Your task to perform on an android device: turn off priority inbox in the gmail app Image 0: 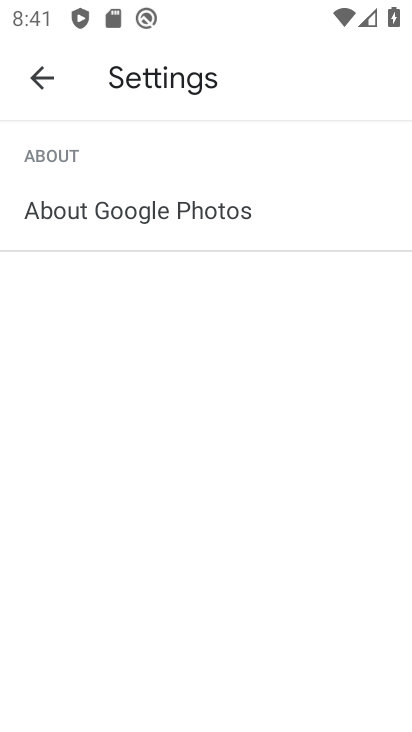
Step 0: press home button
Your task to perform on an android device: turn off priority inbox in the gmail app Image 1: 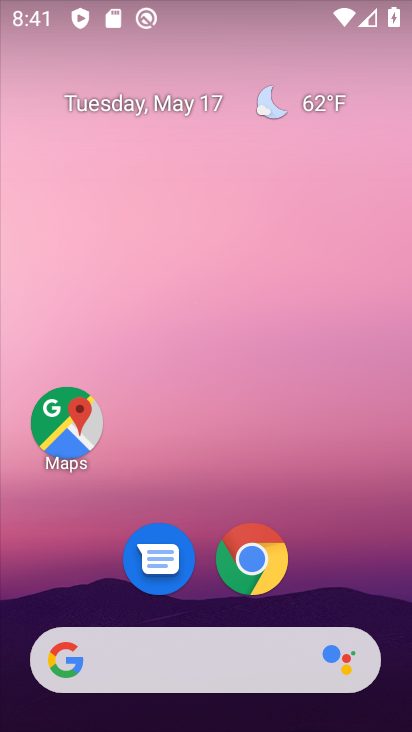
Step 1: drag from (205, 655) to (227, 149)
Your task to perform on an android device: turn off priority inbox in the gmail app Image 2: 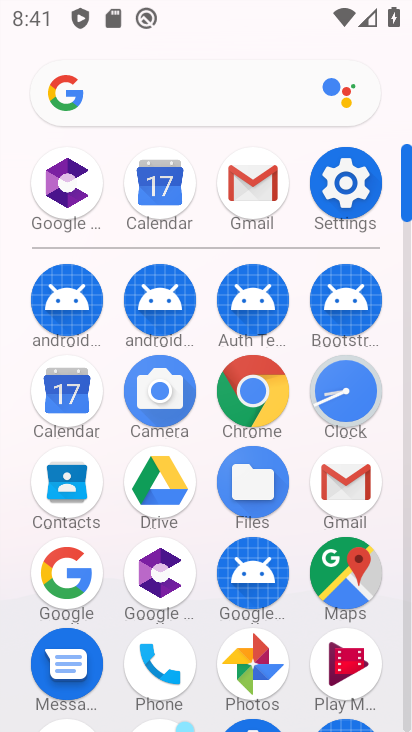
Step 2: click (240, 213)
Your task to perform on an android device: turn off priority inbox in the gmail app Image 3: 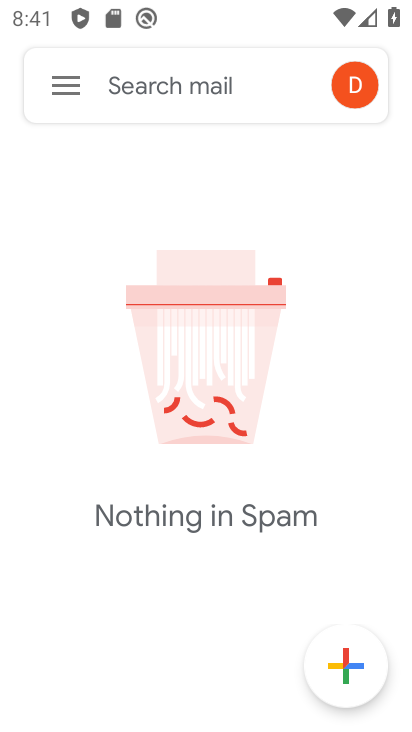
Step 3: click (77, 86)
Your task to perform on an android device: turn off priority inbox in the gmail app Image 4: 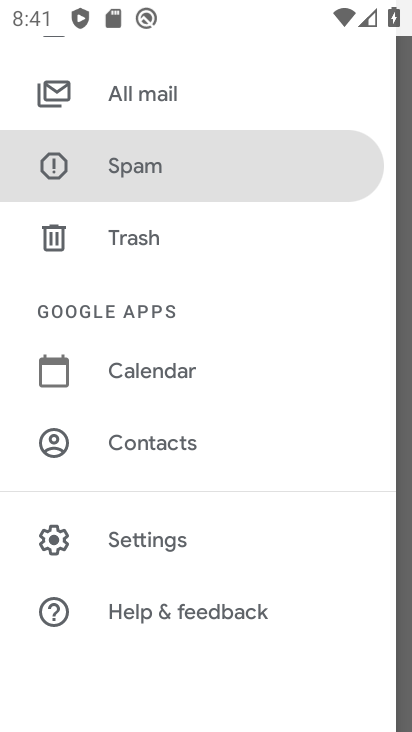
Step 4: click (154, 550)
Your task to perform on an android device: turn off priority inbox in the gmail app Image 5: 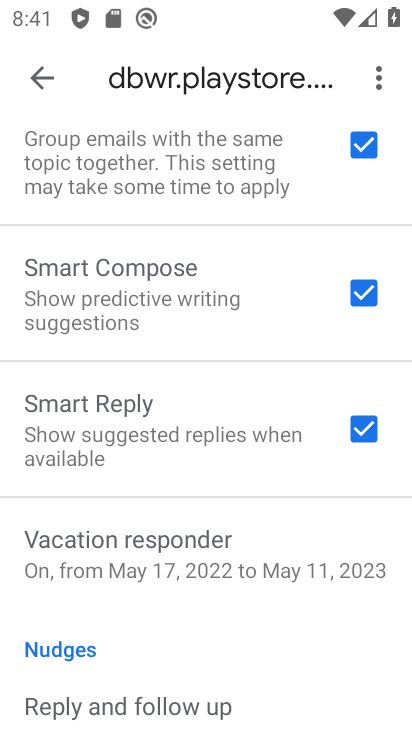
Step 5: drag from (172, 230) to (171, 705)
Your task to perform on an android device: turn off priority inbox in the gmail app Image 6: 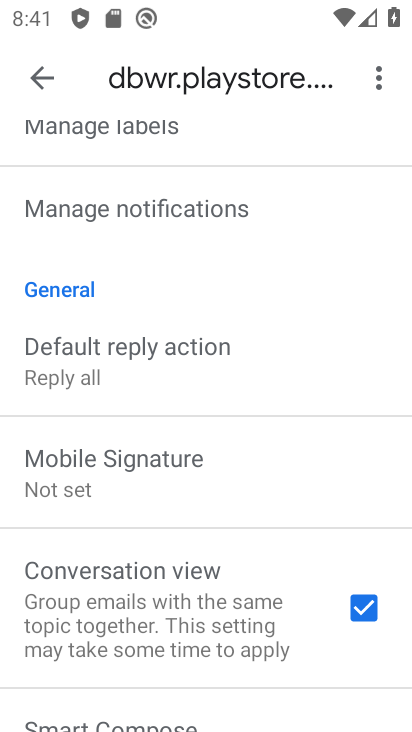
Step 6: drag from (123, 202) to (96, 638)
Your task to perform on an android device: turn off priority inbox in the gmail app Image 7: 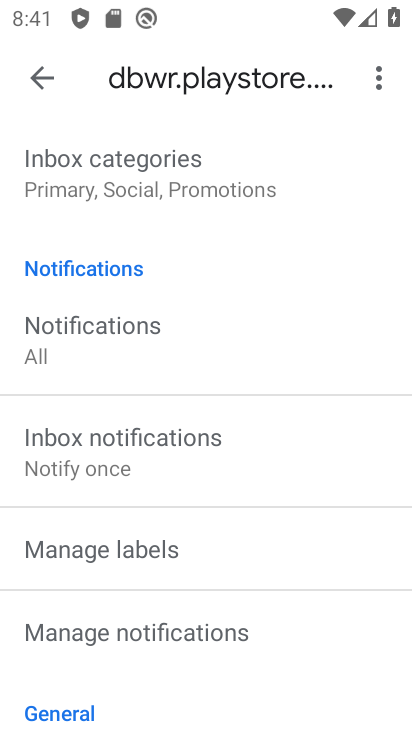
Step 7: drag from (148, 110) to (136, 330)
Your task to perform on an android device: turn off priority inbox in the gmail app Image 8: 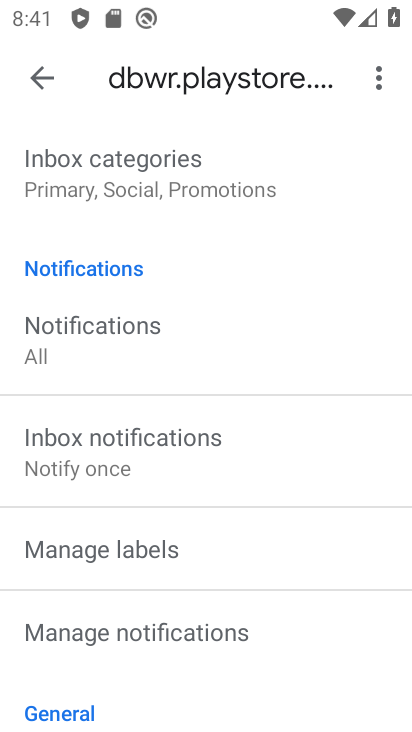
Step 8: drag from (79, 203) to (126, 558)
Your task to perform on an android device: turn off priority inbox in the gmail app Image 9: 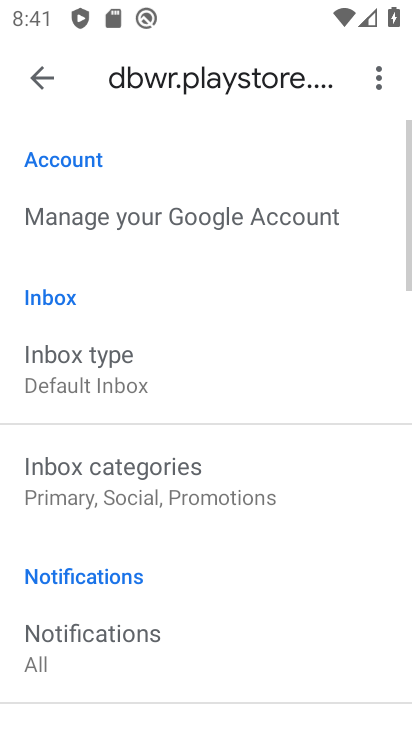
Step 9: click (215, 357)
Your task to perform on an android device: turn off priority inbox in the gmail app Image 10: 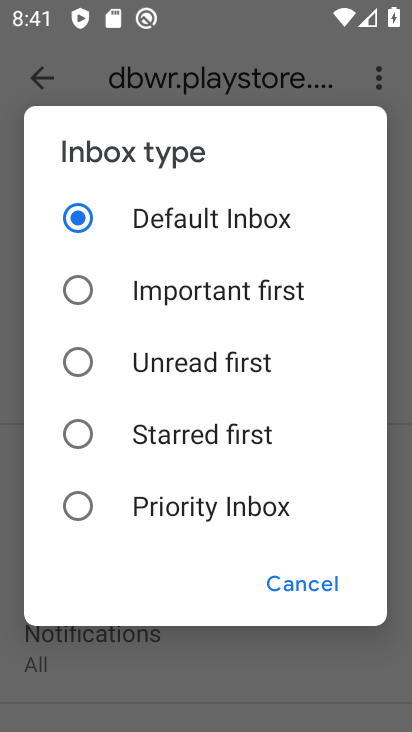
Step 10: click (149, 230)
Your task to perform on an android device: turn off priority inbox in the gmail app Image 11: 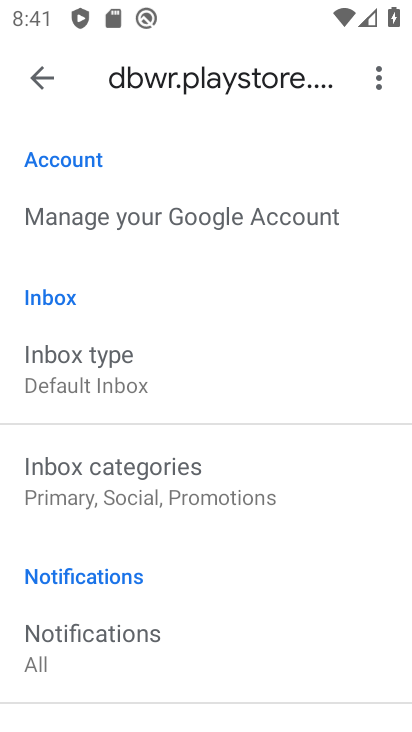
Step 11: task complete